Your task to perform on an android device: turn off translation in the chrome app Image 0: 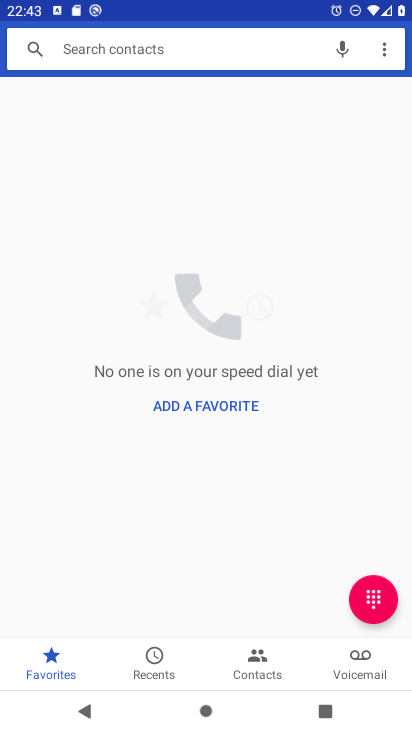
Step 0: press home button
Your task to perform on an android device: turn off translation in the chrome app Image 1: 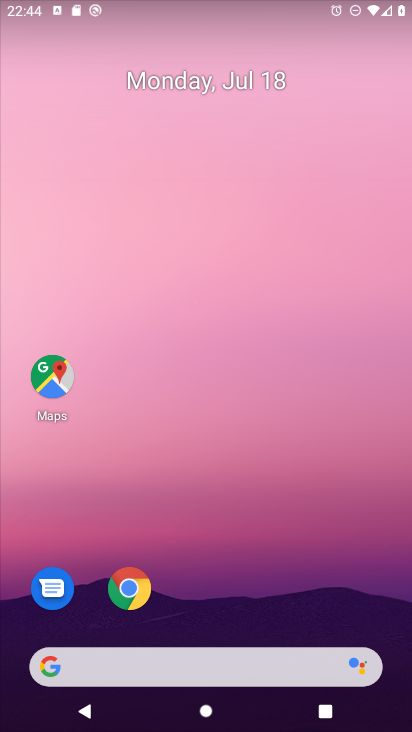
Step 1: click (126, 584)
Your task to perform on an android device: turn off translation in the chrome app Image 2: 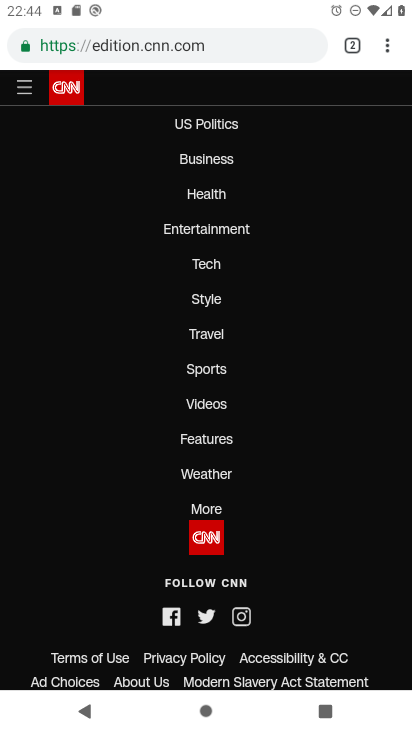
Step 2: click (386, 48)
Your task to perform on an android device: turn off translation in the chrome app Image 3: 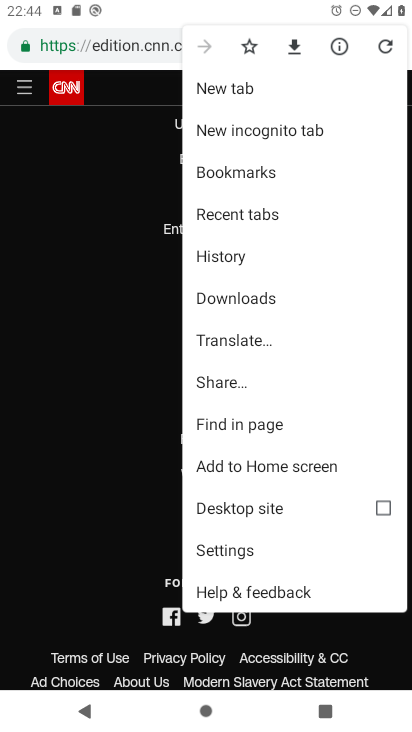
Step 3: click (225, 548)
Your task to perform on an android device: turn off translation in the chrome app Image 4: 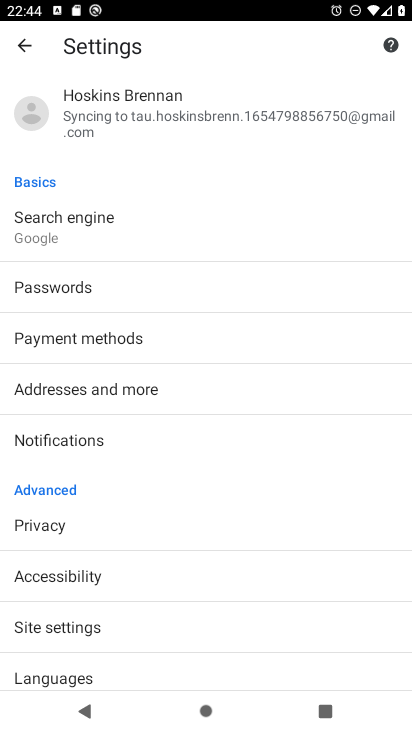
Step 4: drag from (123, 656) to (139, 386)
Your task to perform on an android device: turn off translation in the chrome app Image 5: 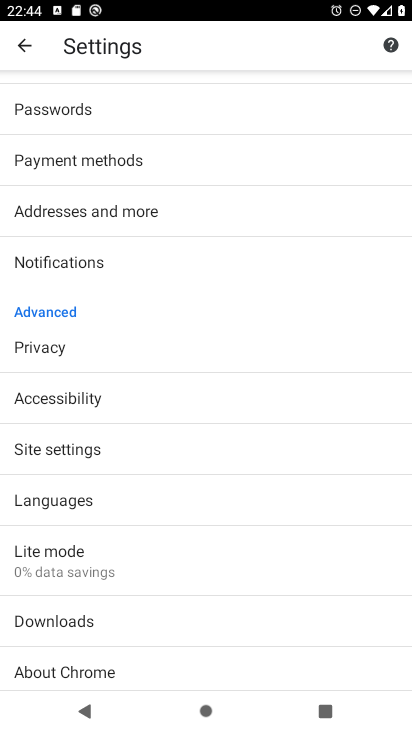
Step 5: click (56, 497)
Your task to perform on an android device: turn off translation in the chrome app Image 6: 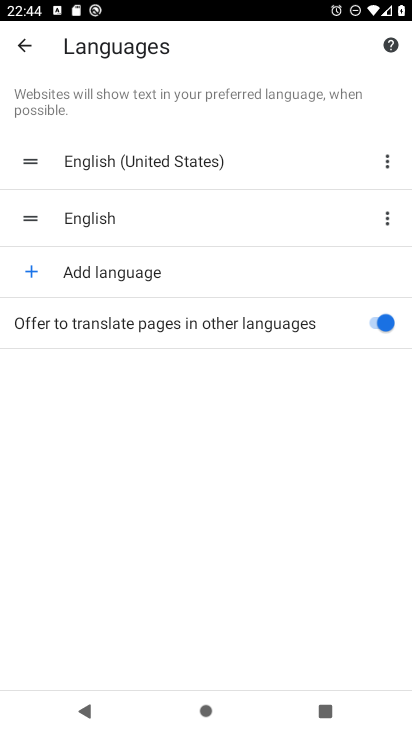
Step 6: click (373, 329)
Your task to perform on an android device: turn off translation in the chrome app Image 7: 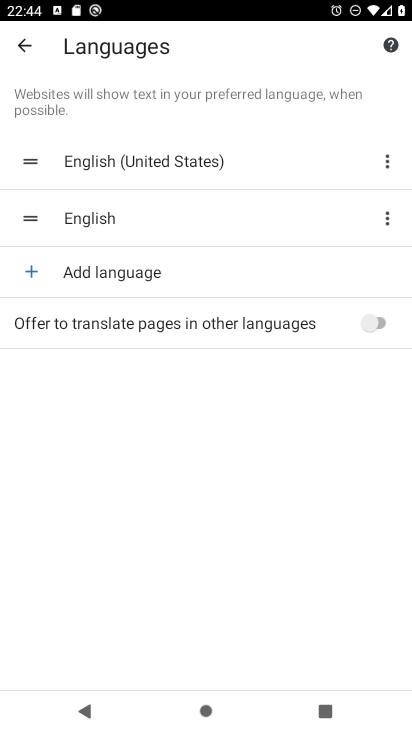
Step 7: task complete